Your task to perform on an android device: What's the news in Ecuador? Image 0: 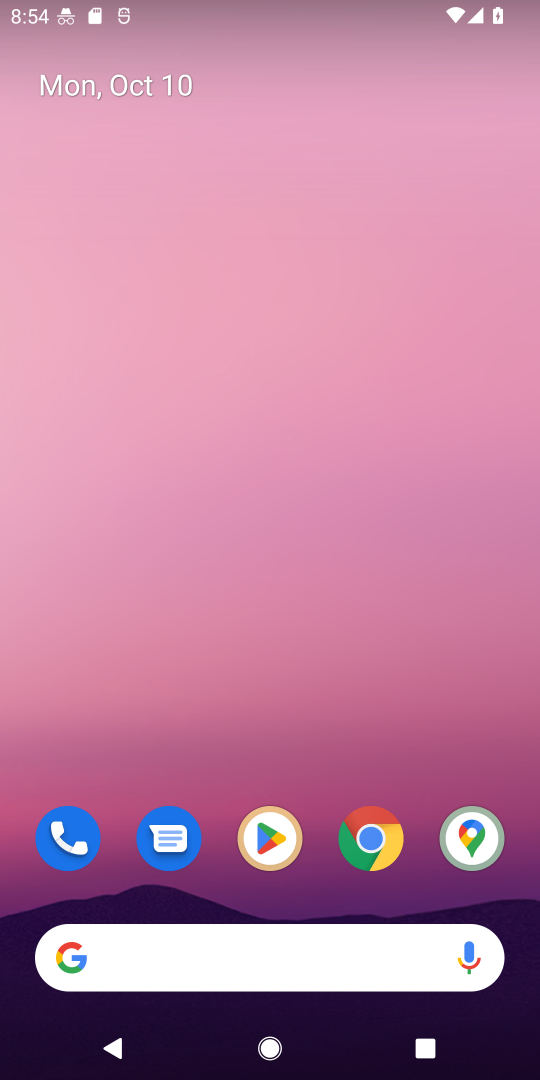
Step 0: click (369, 835)
Your task to perform on an android device: What's the news in Ecuador? Image 1: 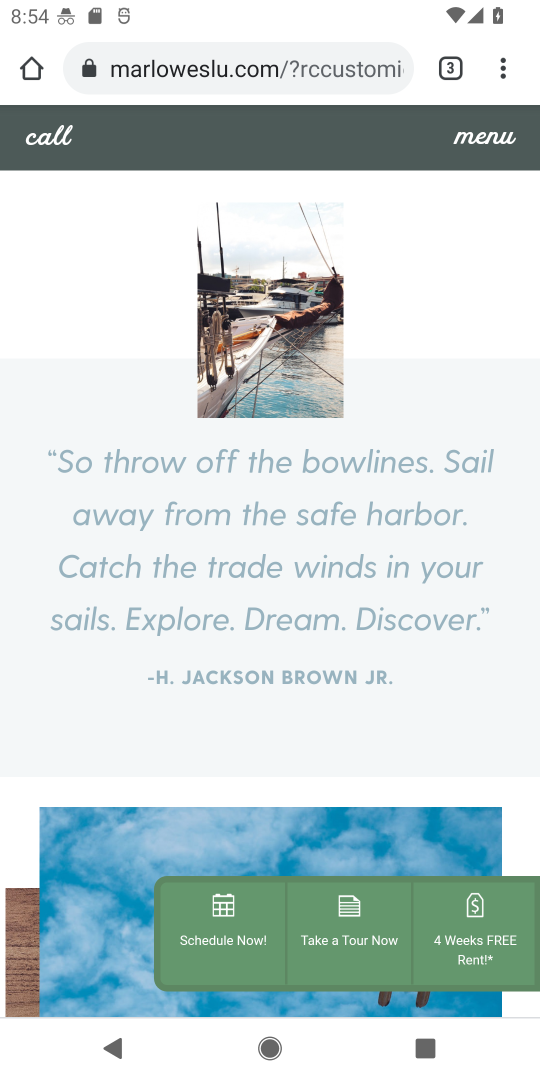
Step 1: click (182, 44)
Your task to perform on an android device: What's the news in Ecuador? Image 2: 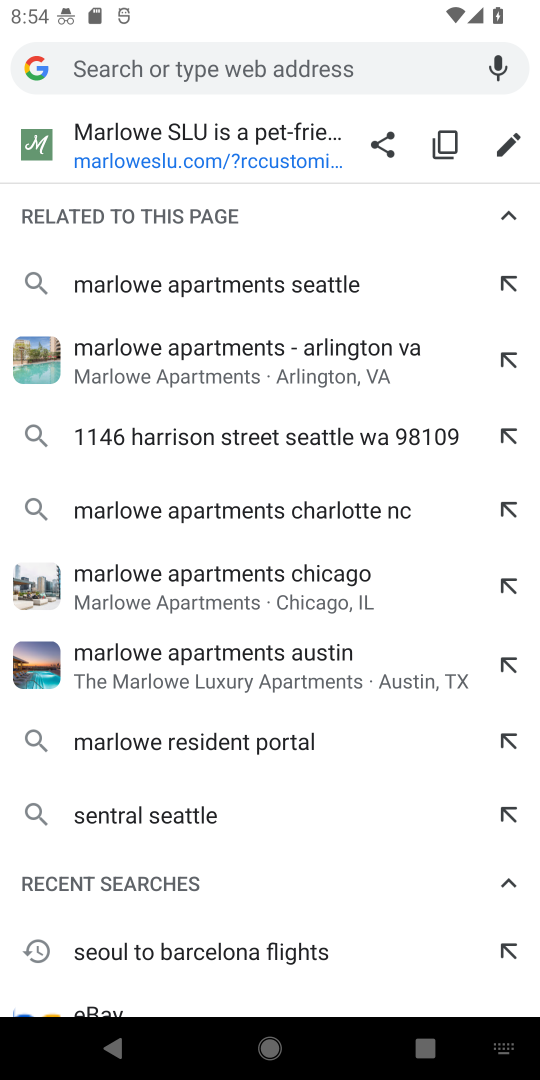
Step 2: type "news in Ecuador?"
Your task to perform on an android device: What's the news in Ecuador? Image 3: 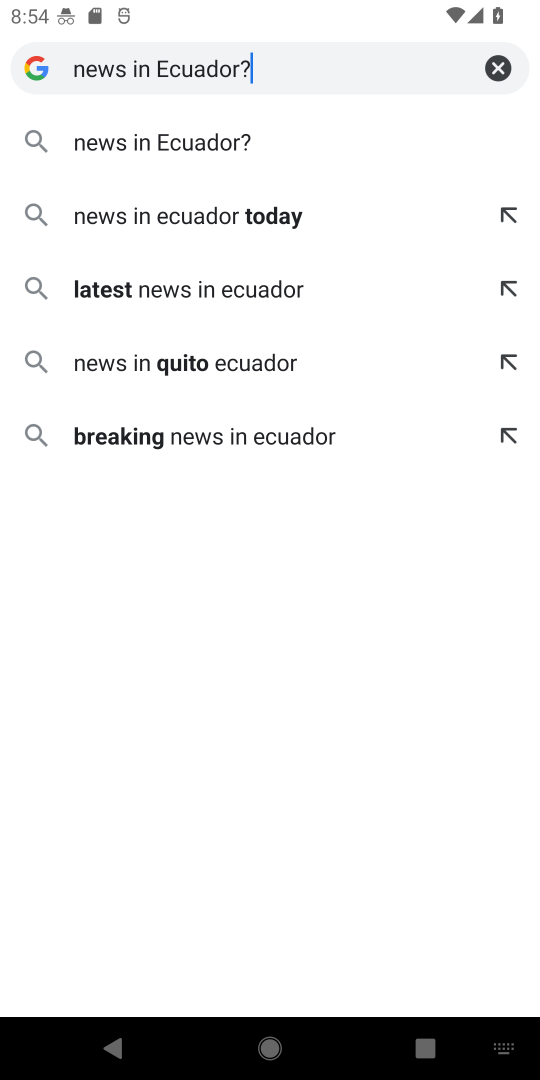
Step 3: click (155, 148)
Your task to perform on an android device: What's the news in Ecuador? Image 4: 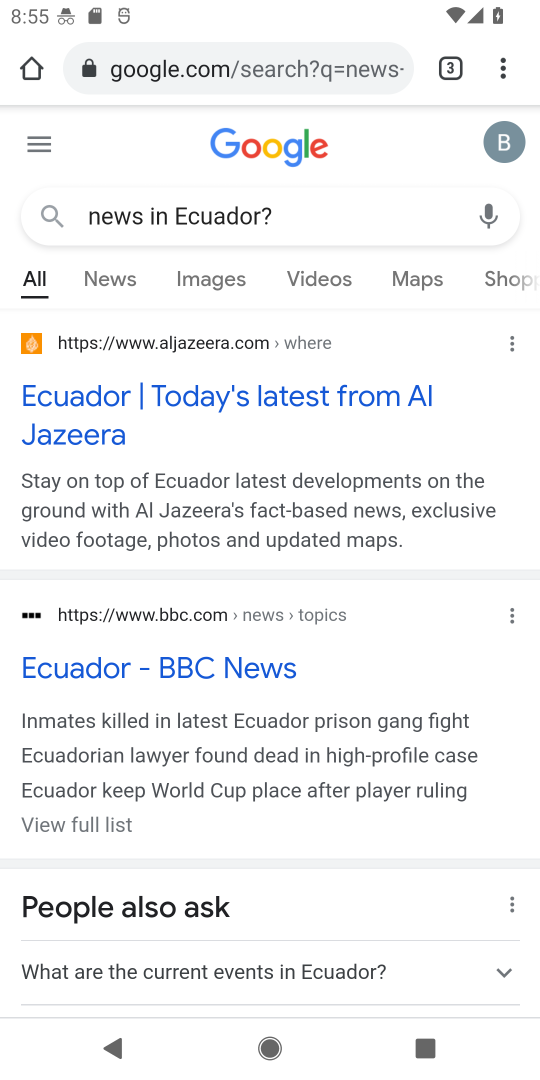
Step 4: click (82, 408)
Your task to perform on an android device: What's the news in Ecuador? Image 5: 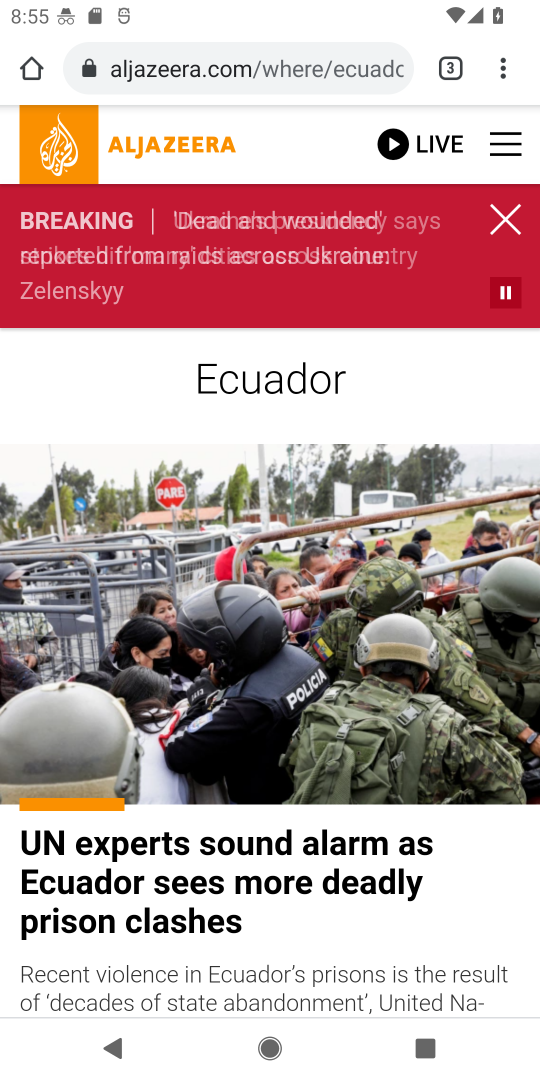
Step 5: drag from (284, 876) to (331, 154)
Your task to perform on an android device: What's the news in Ecuador? Image 6: 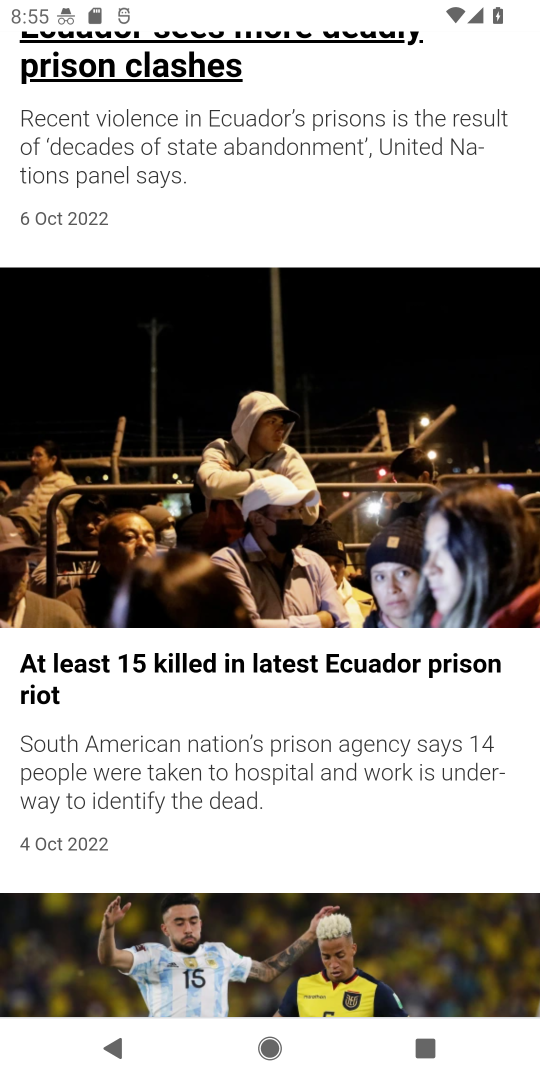
Step 6: click (108, 78)
Your task to perform on an android device: What's the news in Ecuador? Image 7: 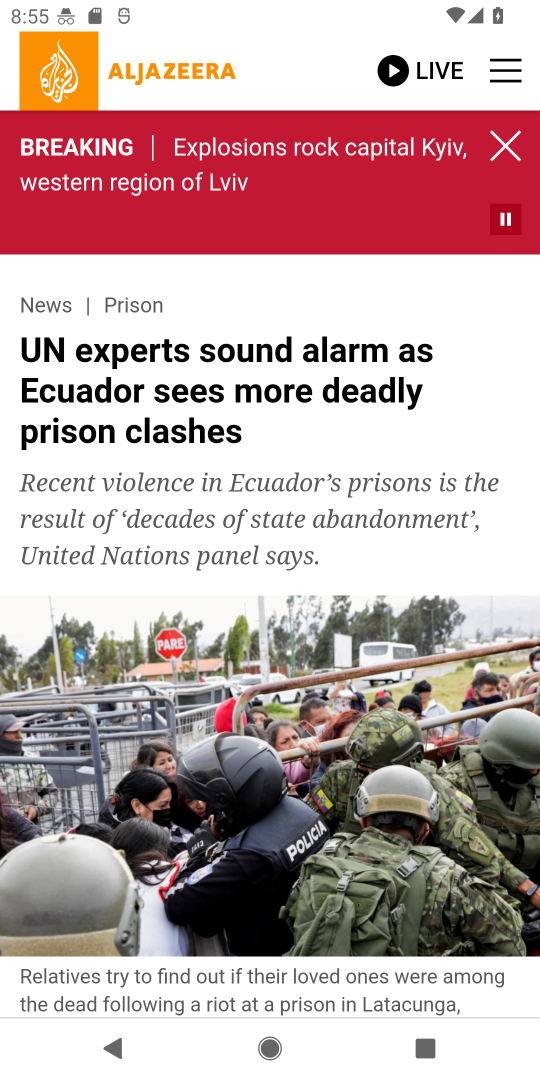
Step 7: task complete